Your task to perform on an android device: open app "LiveIn - Share Your Moment" Image 0: 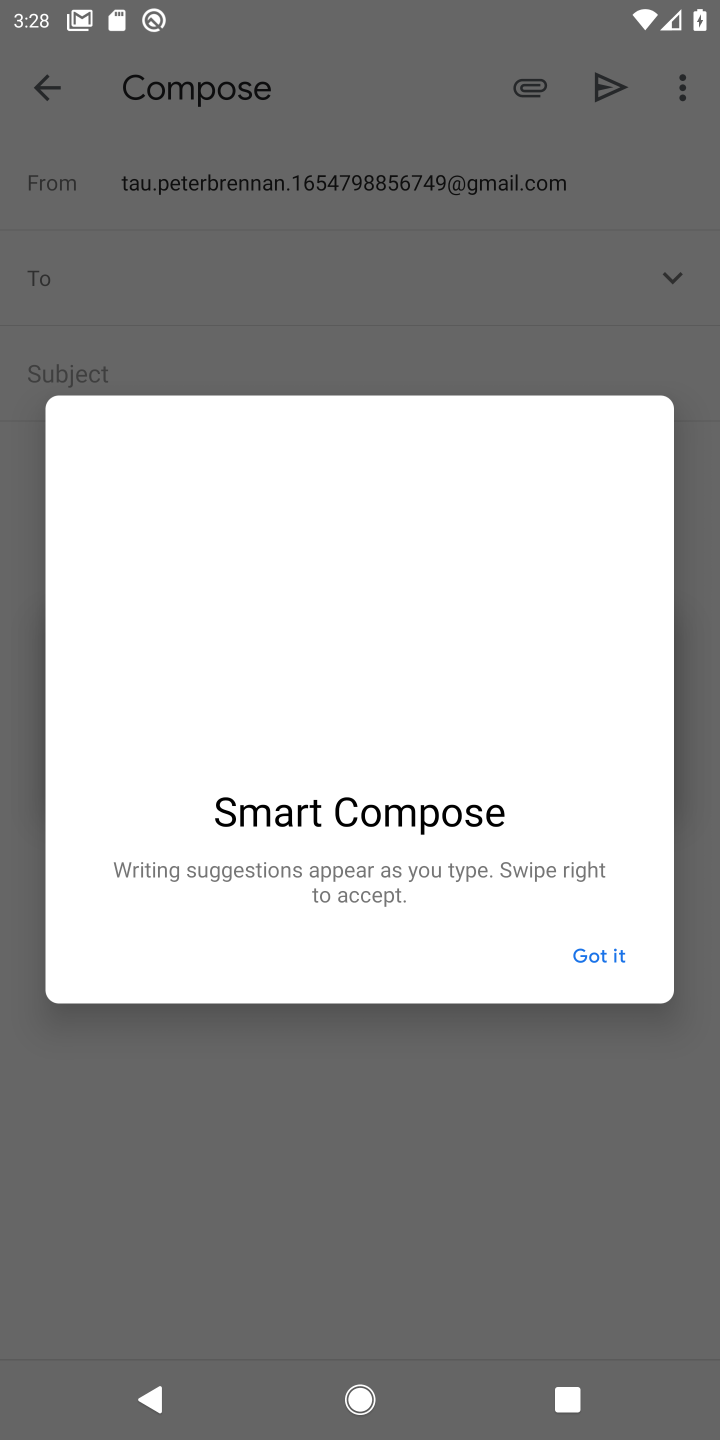
Step 0: press back button
Your task to perform on an android device: open app "LiveIn - Share Your Moment" Image 1: 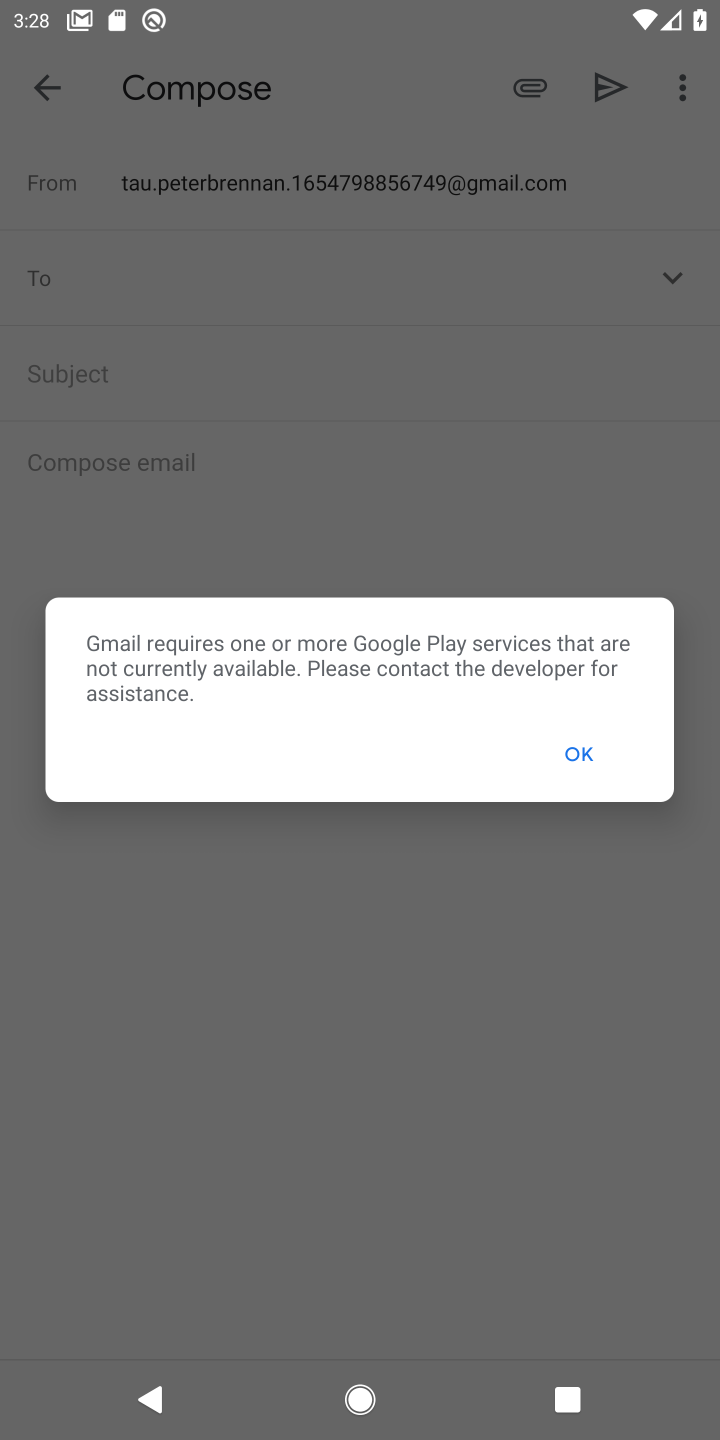
Step 1: press home button
Your task to perform on an android device: open app "LiveIn - Share Your Moment" Image 2: 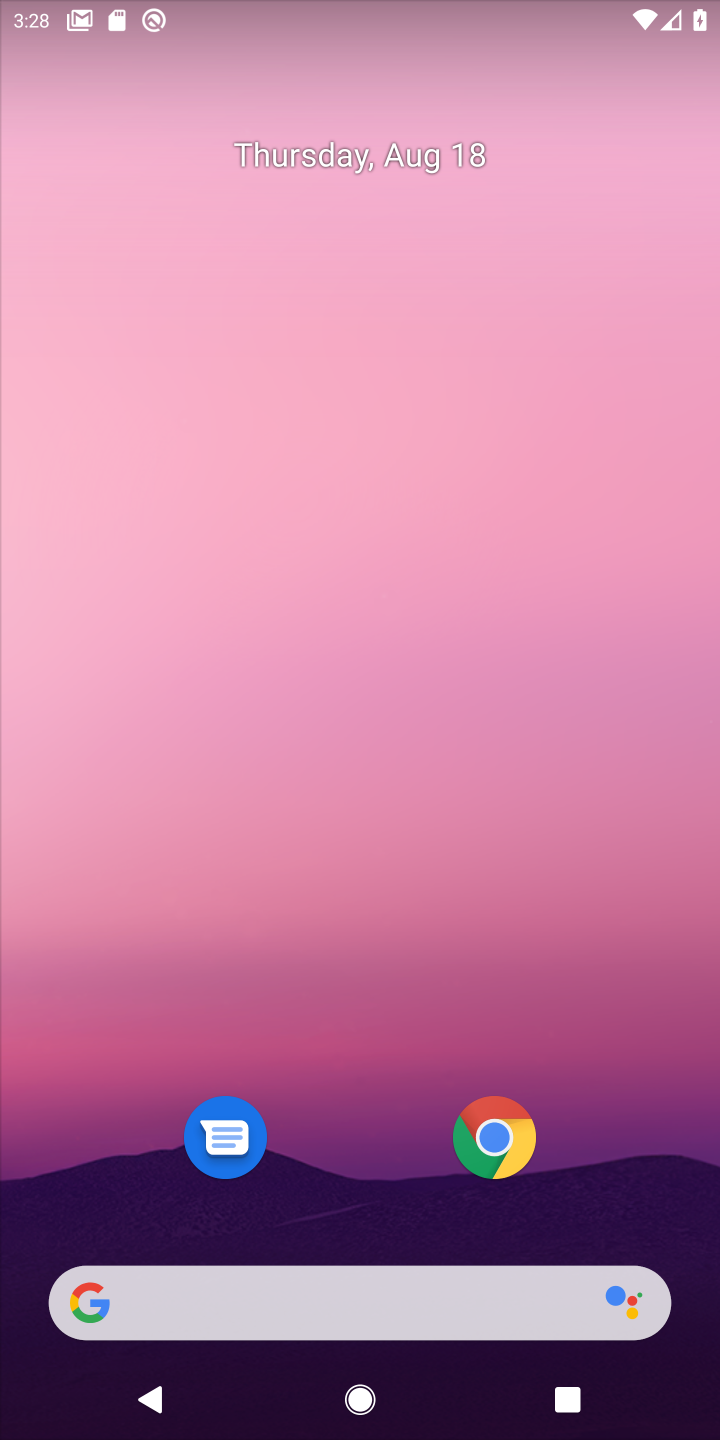
Step 2: drag from (342, 1101) to (355, 108)
Your task to perform on an android device: open app "LiveIn - Share Your Moment" Image 3: 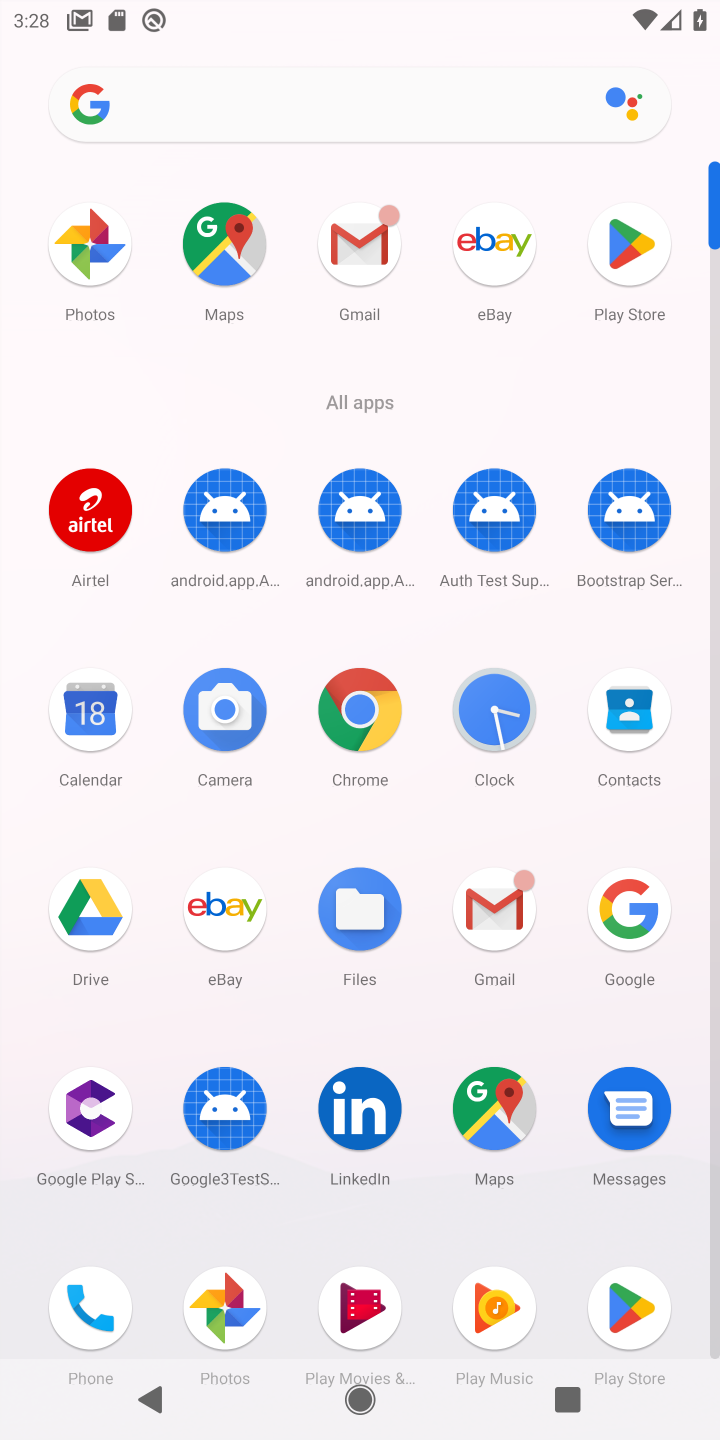
Step 3: click (630, 252)
Your task to perform on an android device: open app "LiveIn - Share Your Moment" Image 4: 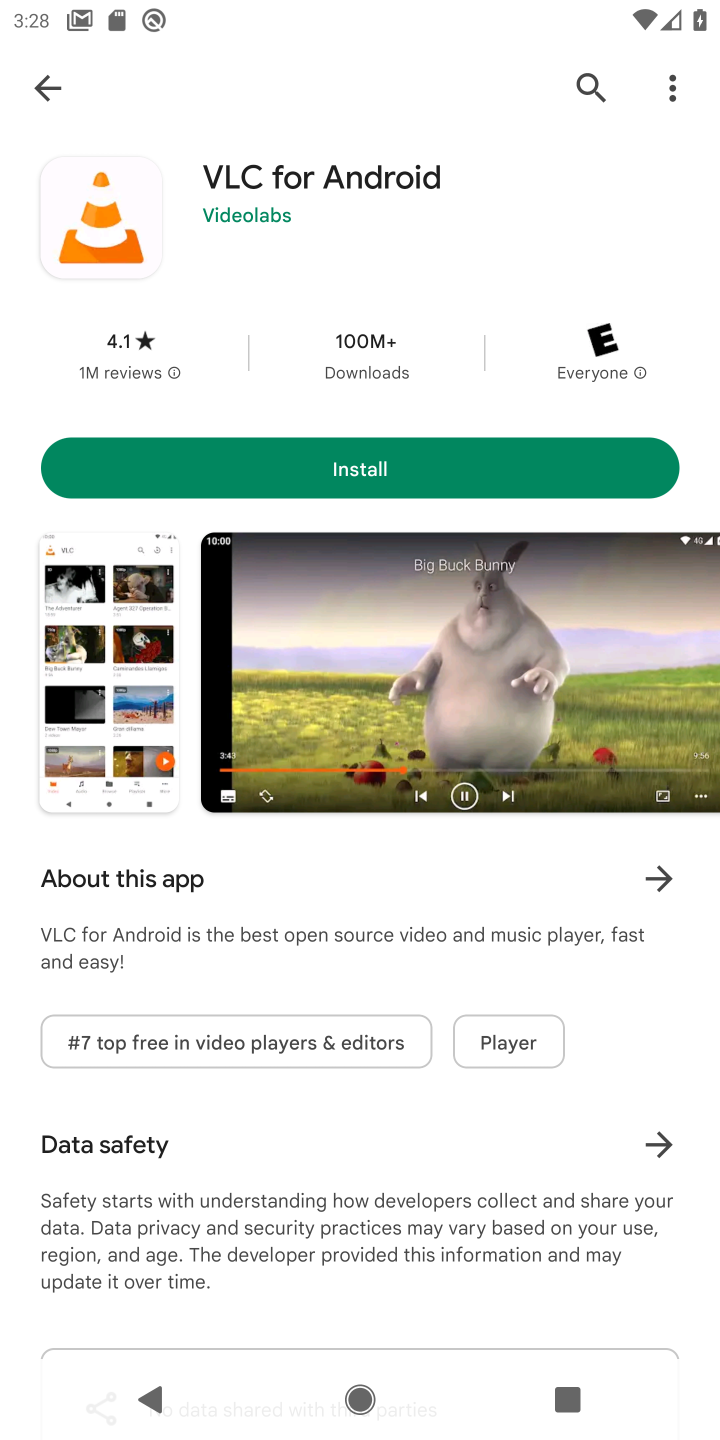
Step 4: click (59, 88)
Your task to perform on an android device: open app "LiveIn - Share Your Moment" Image 5: 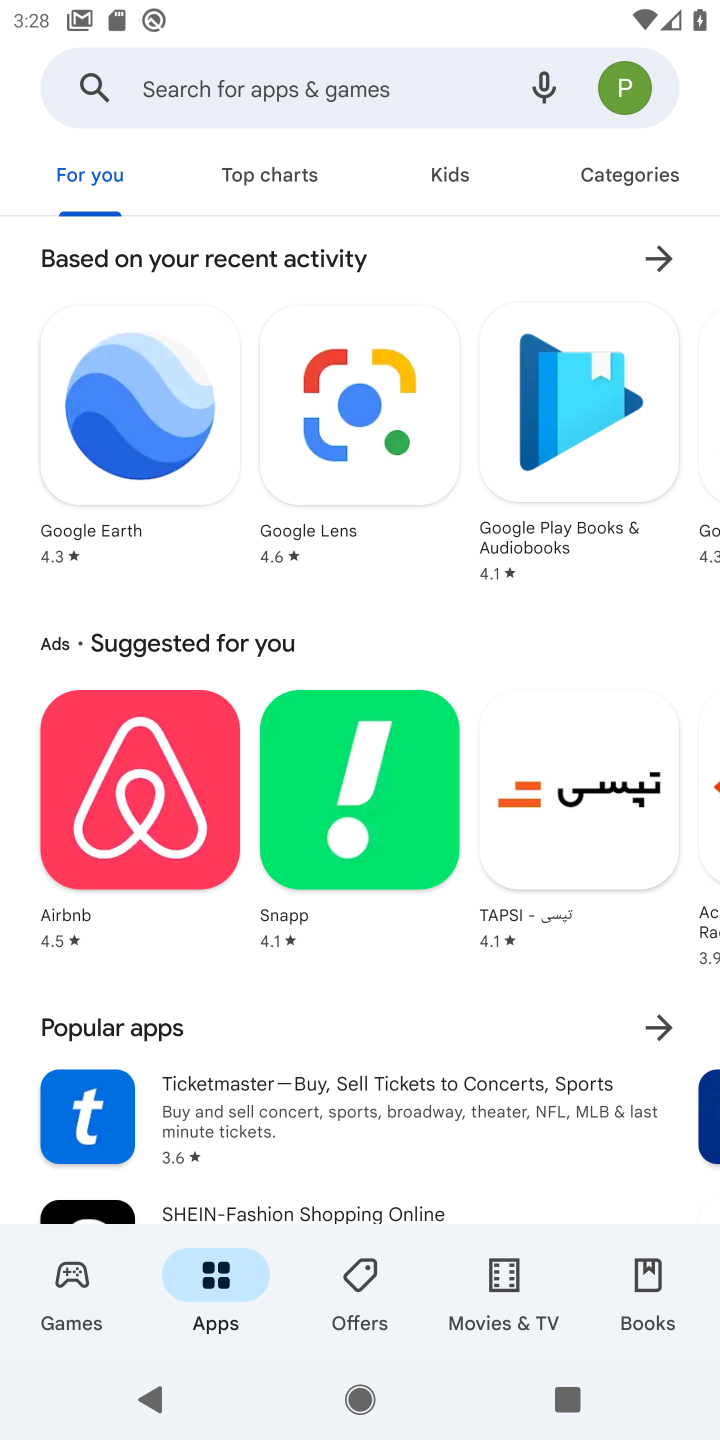
Step 5: click (259, 88)
Your task to perform on an android device: open app "LiveIn - Share Your Moment" Image 6: 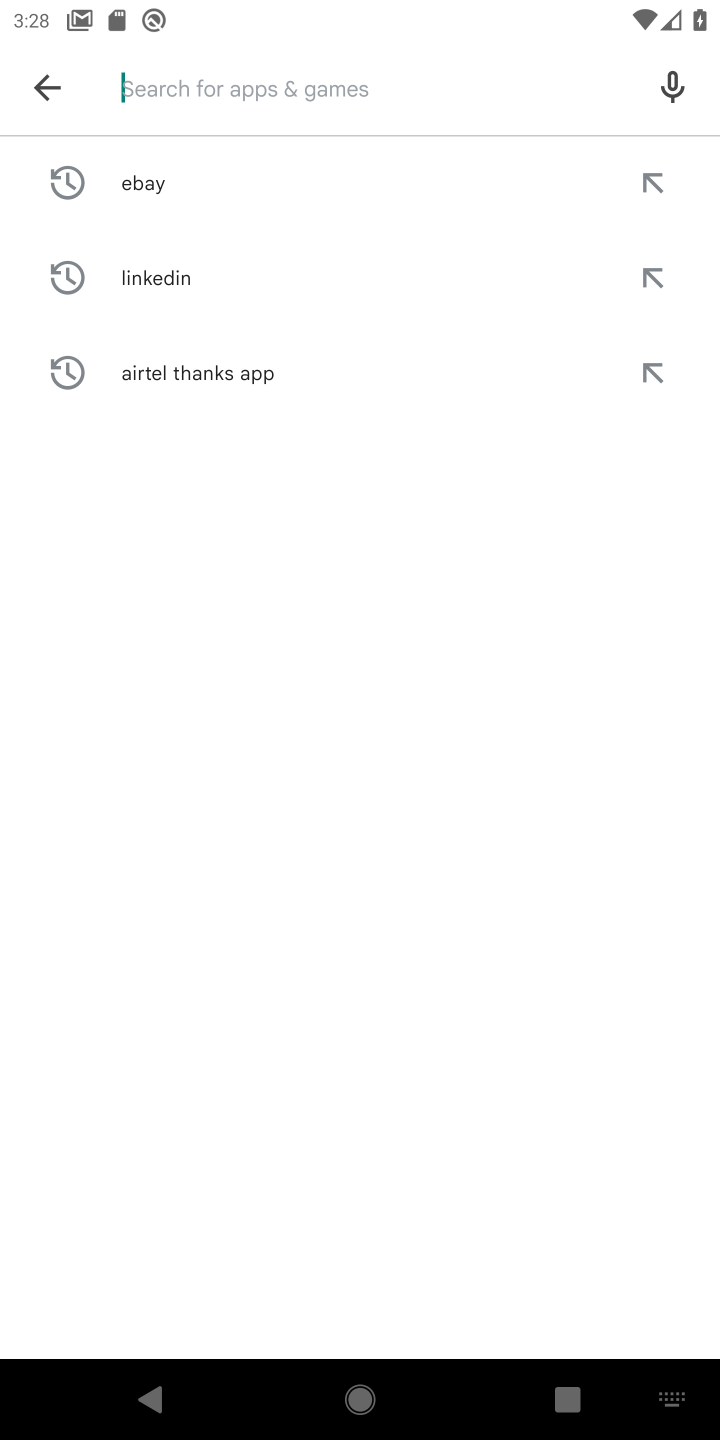
Step 6: type "LiveIn"
Your task to perform on an android device: open app "LiveIn - Share Your Moment" Image 7: 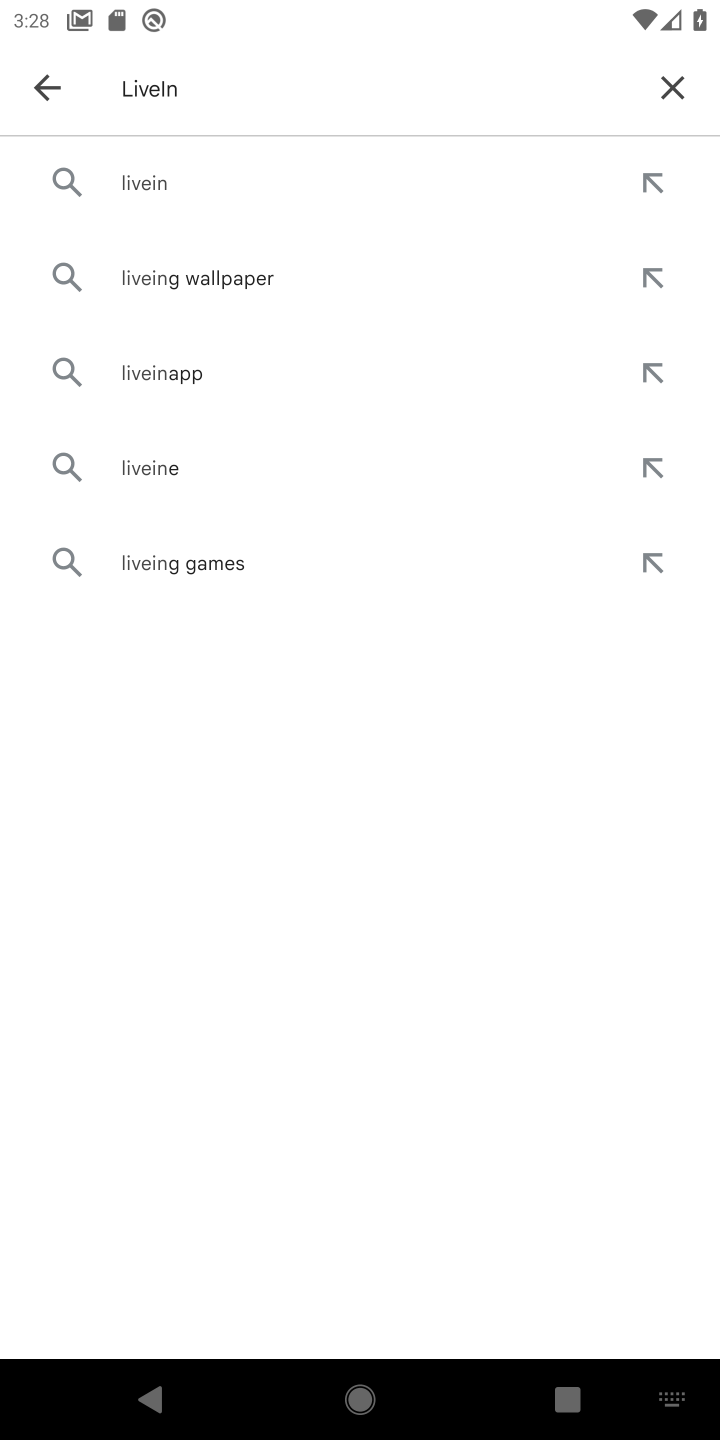
Step 7: click (150, 180)
Your task to perform on an android device: open app "LiveIn - Share Your Moment" Image 8: 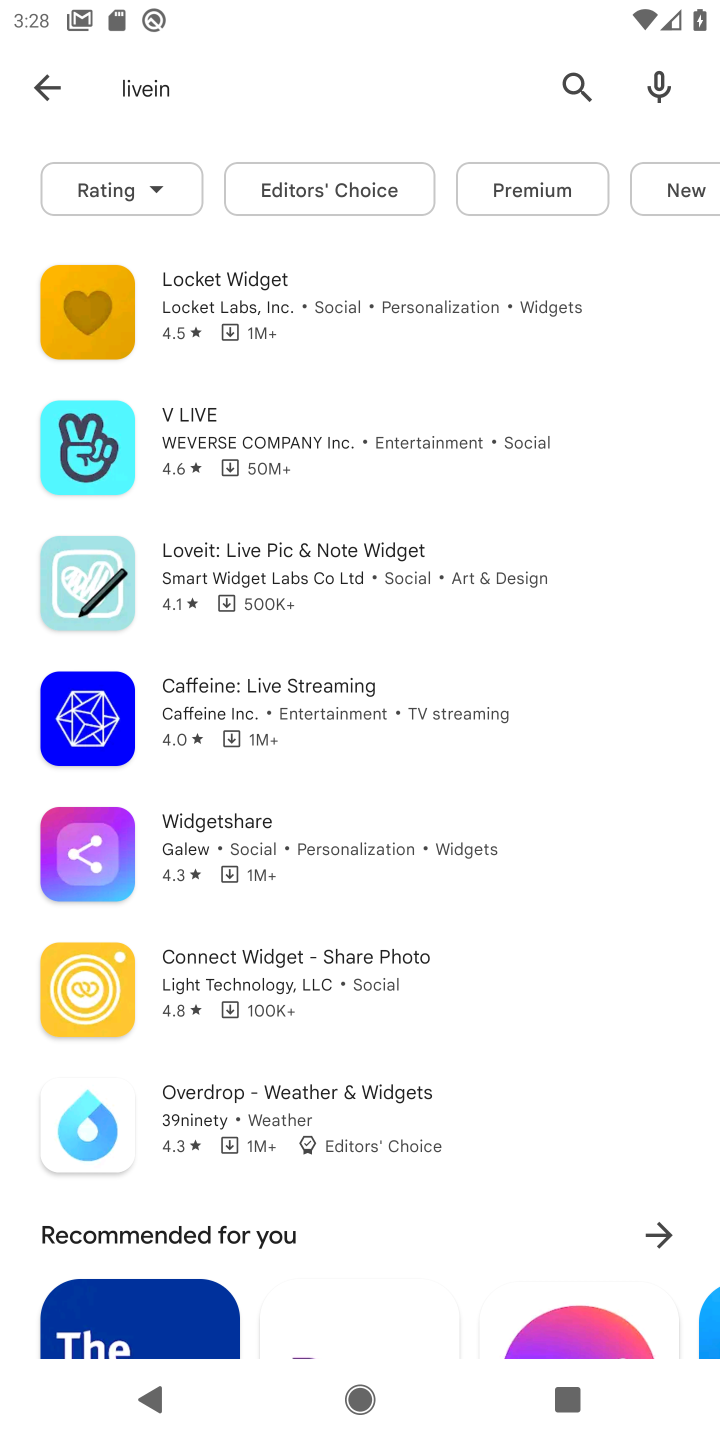
Step 8: click (45, 81)
Your task to perform on an android device: open app "LiveIn - Share Your Moment" Image 9: 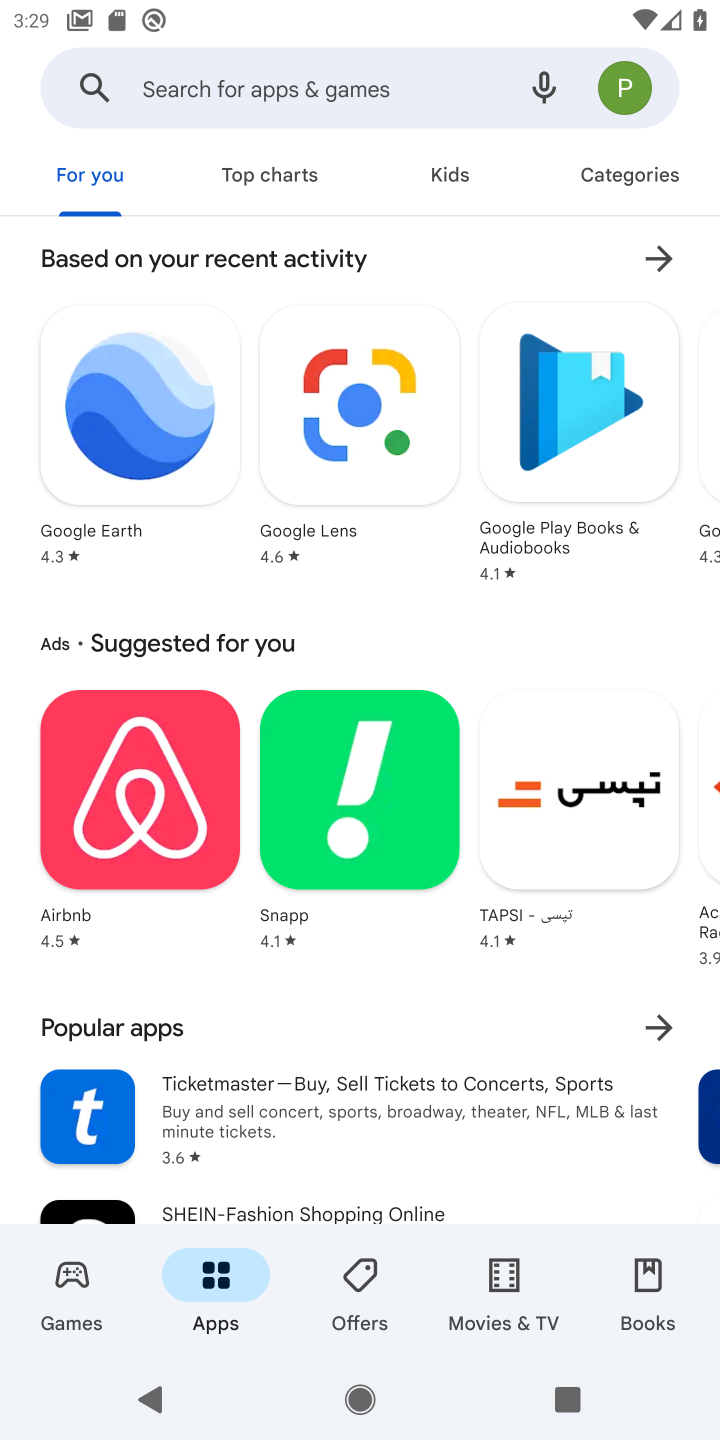
Step 9: click (219, 81)
Your task to perform on an android device: open app "LiveIn - Share Your Moment" Image 10: 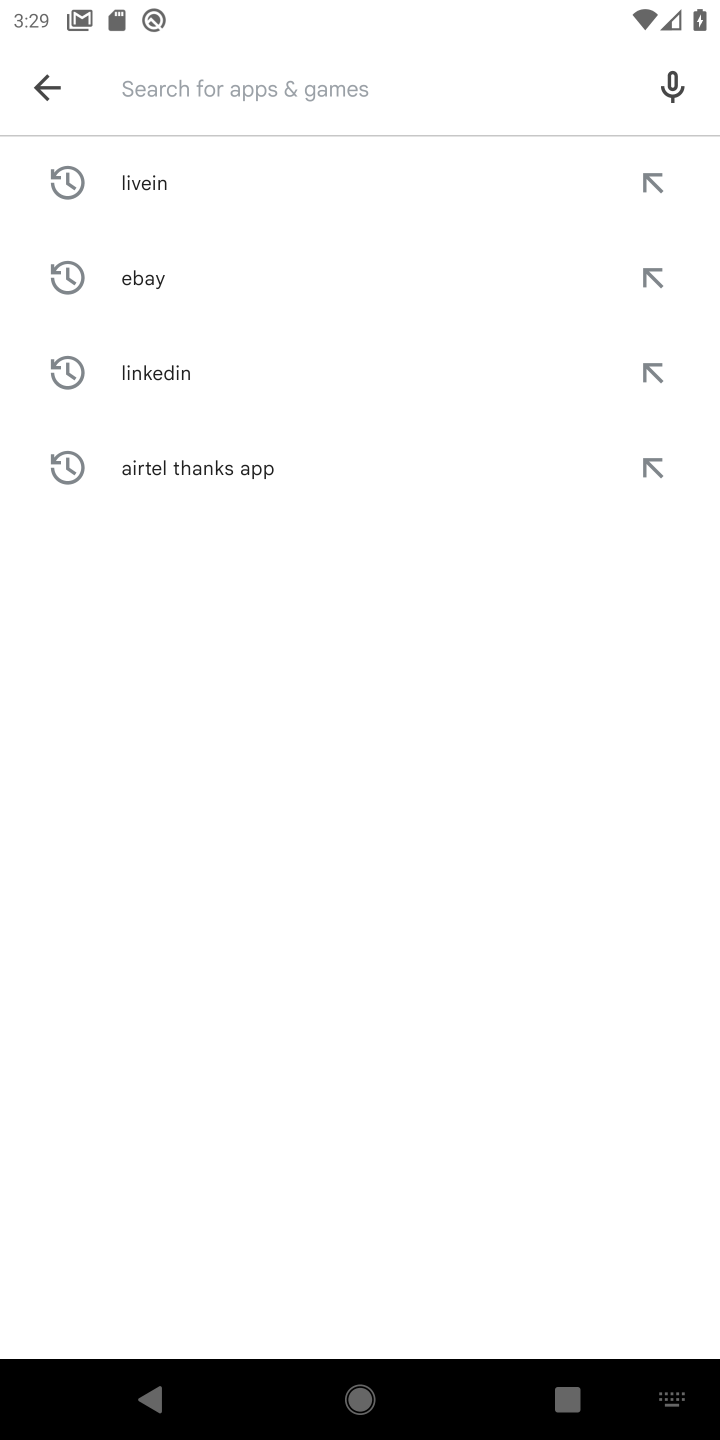
Step 10: type "LiveIn - Share Your Moment"
Your task to perform on an android device: open app "LiveIn - Share Your Moment" Image 11: 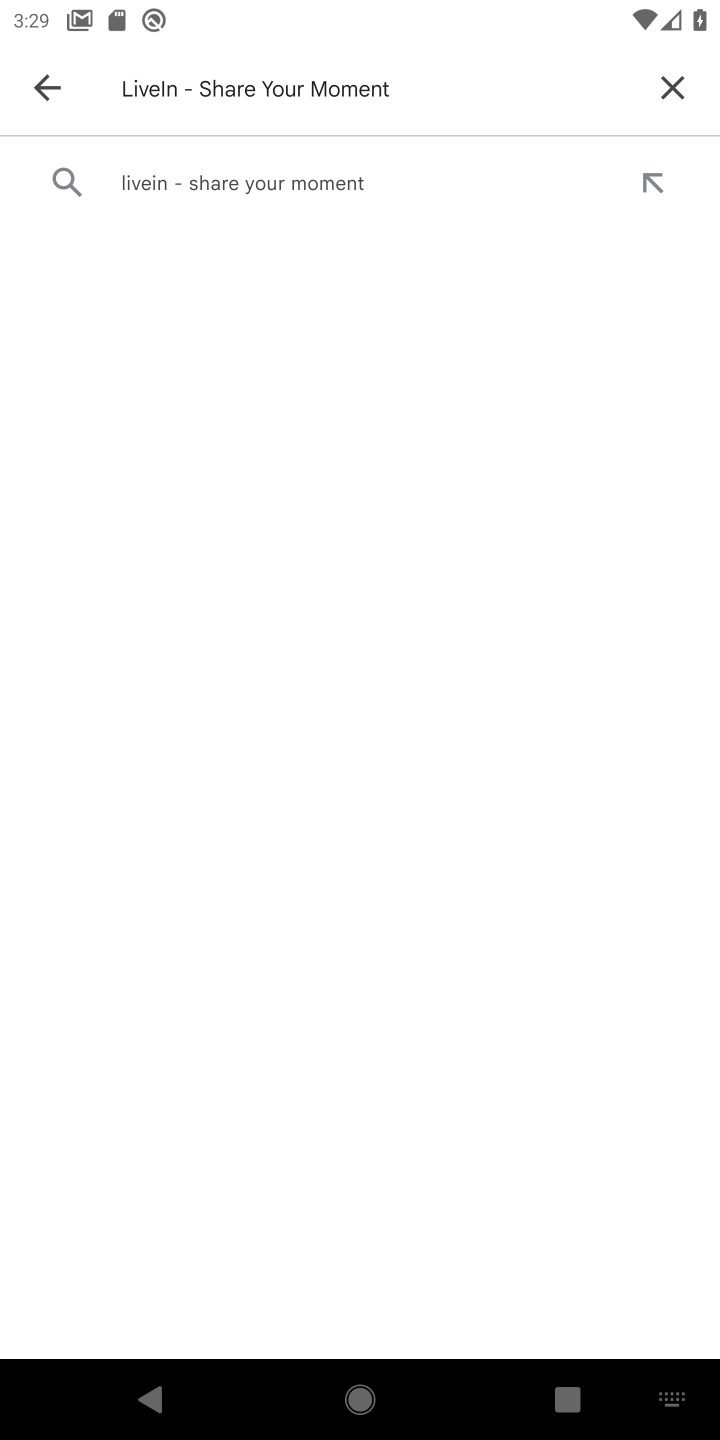
Step 11: click (221, 168)
Your task to perform on an android device: open app "LiveIn - Share Your Moment" Image 12: 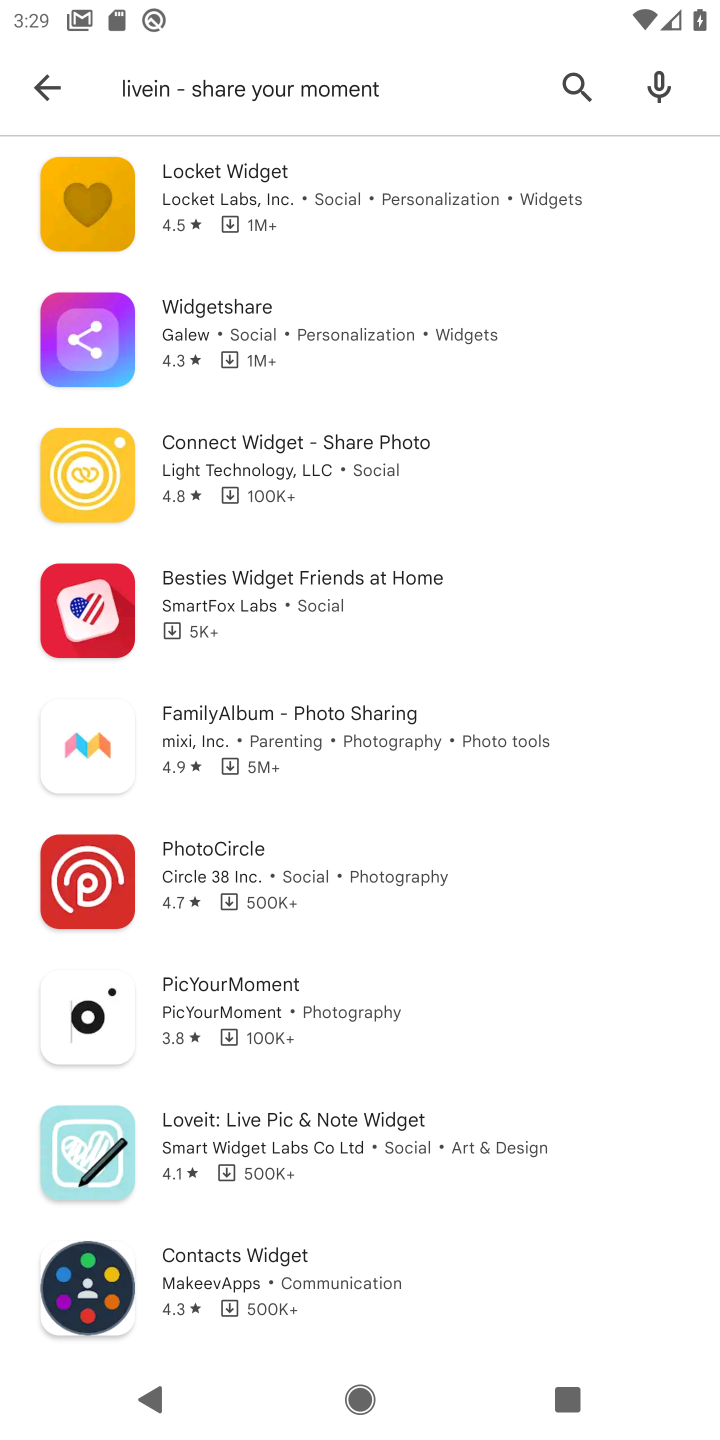
Step 12: task complete